Your task to perform on an android device: delete the emails in spam in the gmail app Image 0: 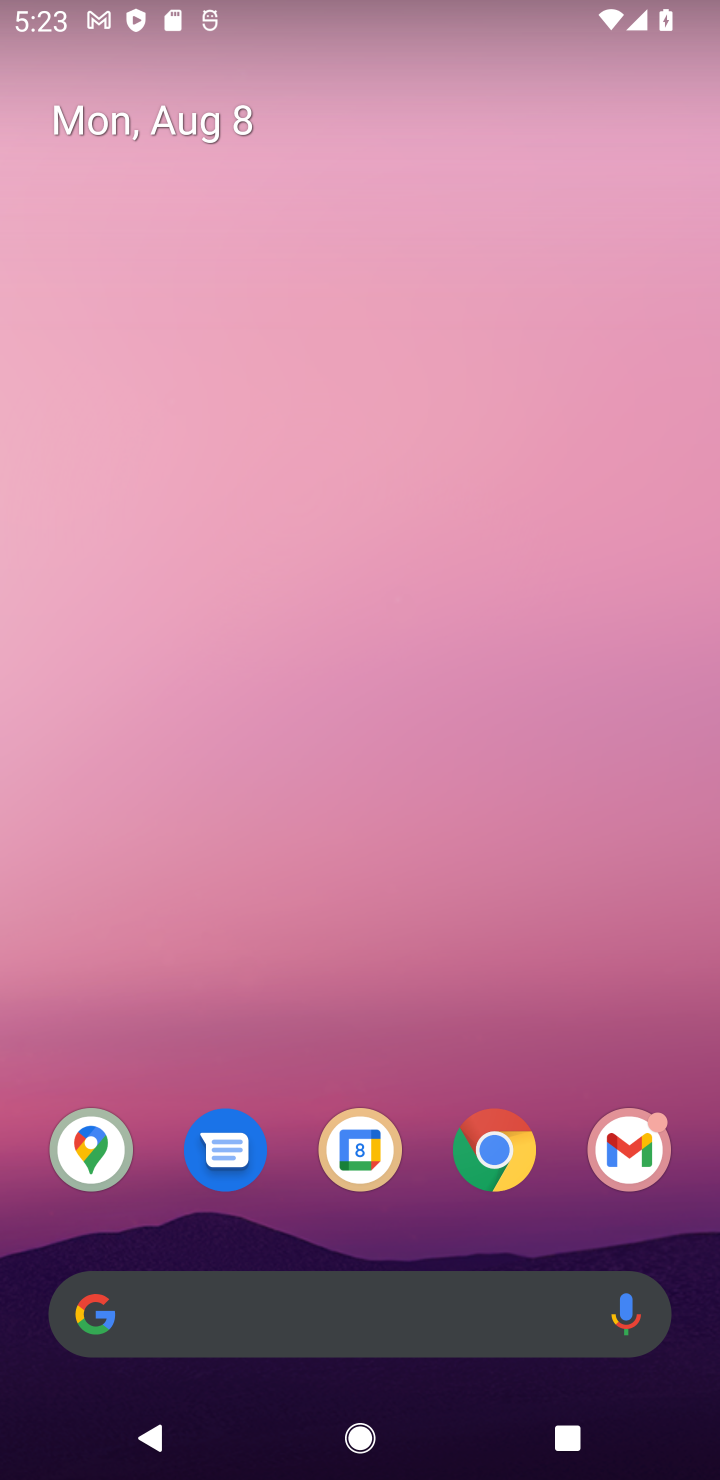
Step 0: click (592, 1184)
Your task to perform on an android device: delete the emails in spam in the gmail app Image 1: 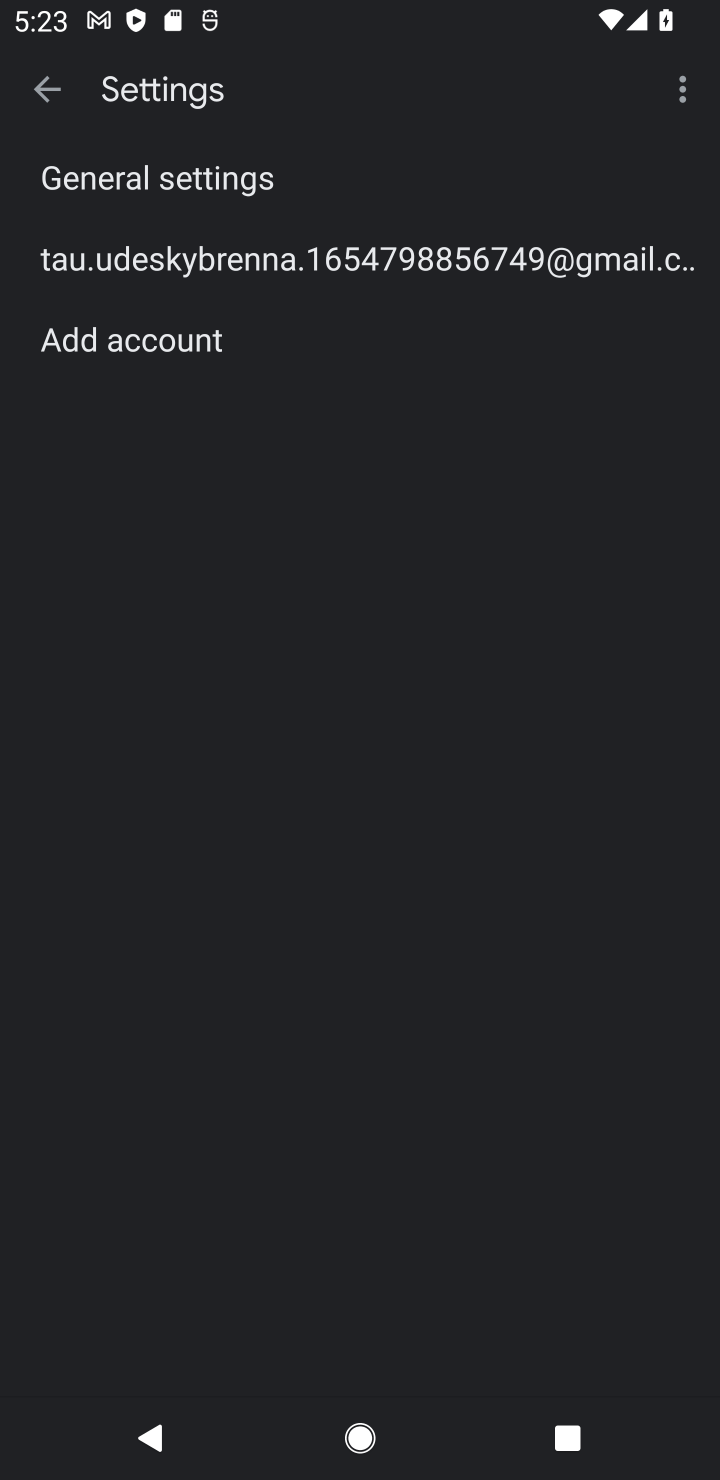
Step 1: click (34, 89)
Your task to perform on an android device: delete the emails in spam in the gmail app Image 2: 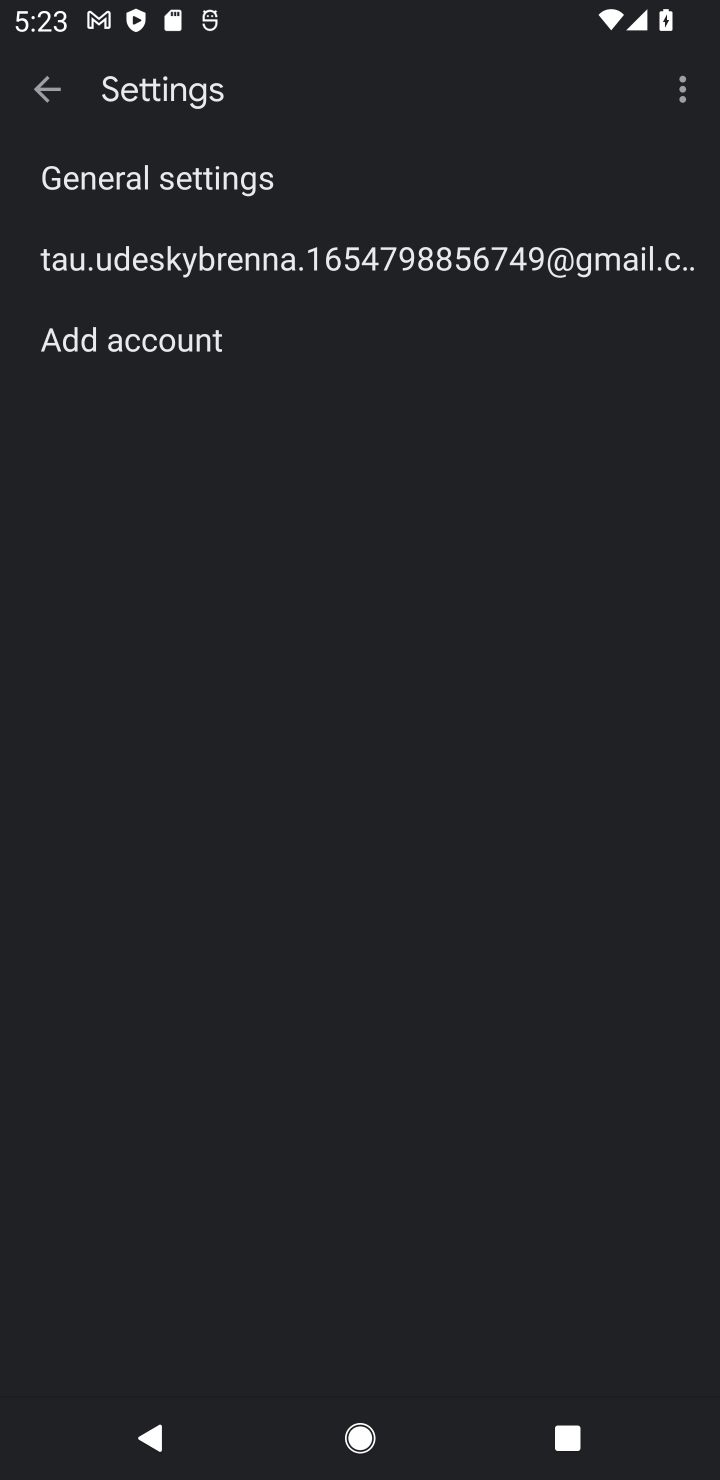
Step 2: task complete